Your task to perform on an android device: Set the phone to "Do not disturb". Image 0: 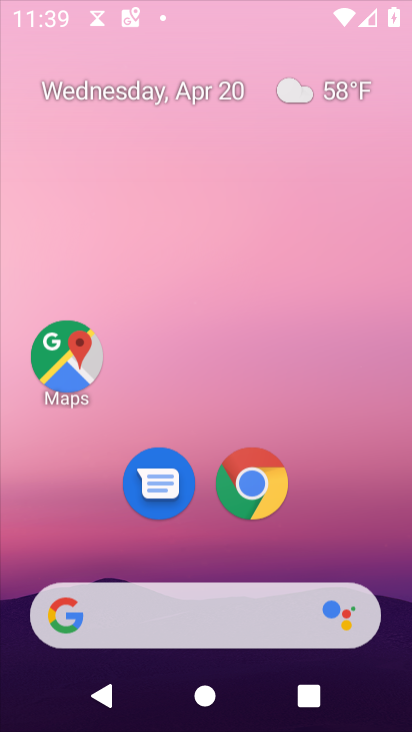
Step 0: drag from (345, 505) to (212, 24)
Your task to perform on an android device: Set the phone to "Do not disturb". Image 1: 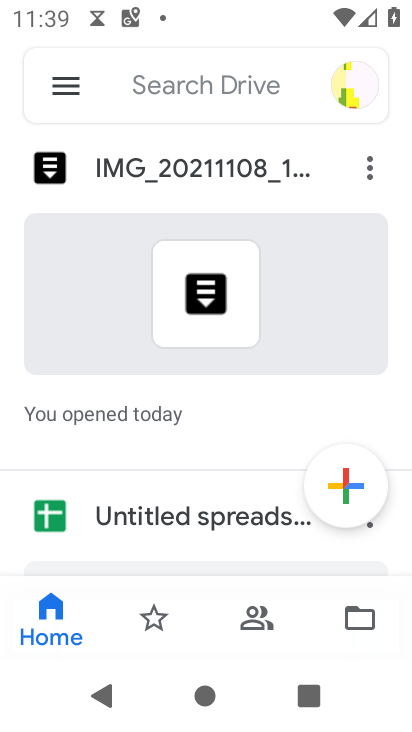
Step 1: press back button
Your task to perform on an android device: Set the phone to "Do not disturb". Image 2: 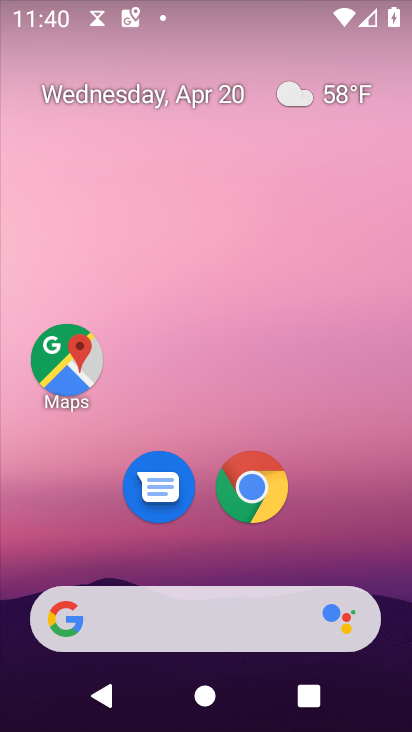
Step 2: drag from (330, 456) to (210, 2)
Your task to perform on an android device: Set the phone to "Do not disturb". Image 3: 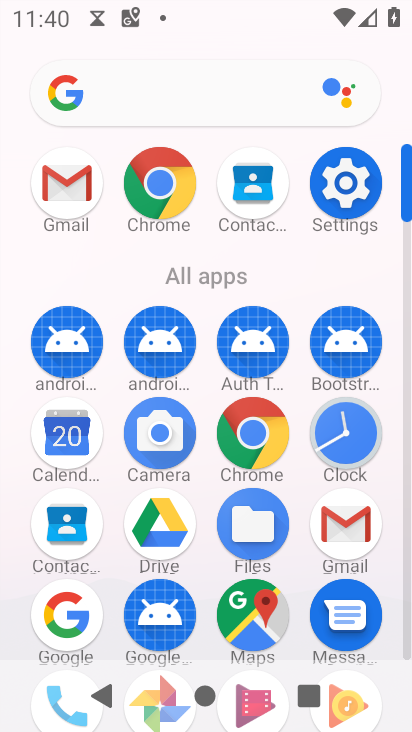
Step 3: click (352, 181)
Your task to perform on an android device: Set the phone to "Do not disturb". Image 4: 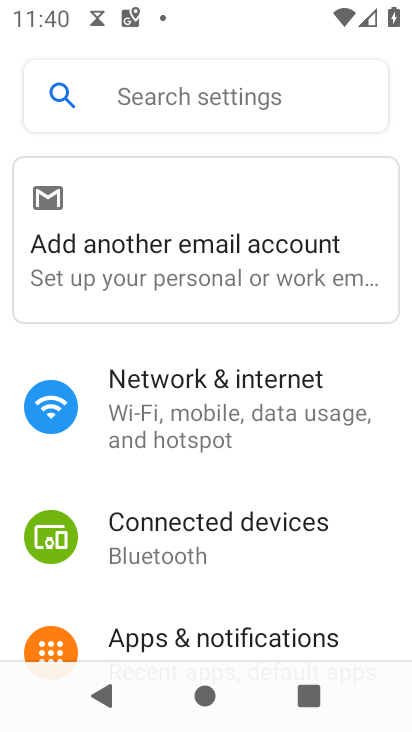
Step 4: drag from (319, 621) to (322, 211)
Your task to perform on an android device: Set the phone to "Do not disturb". Image 5: 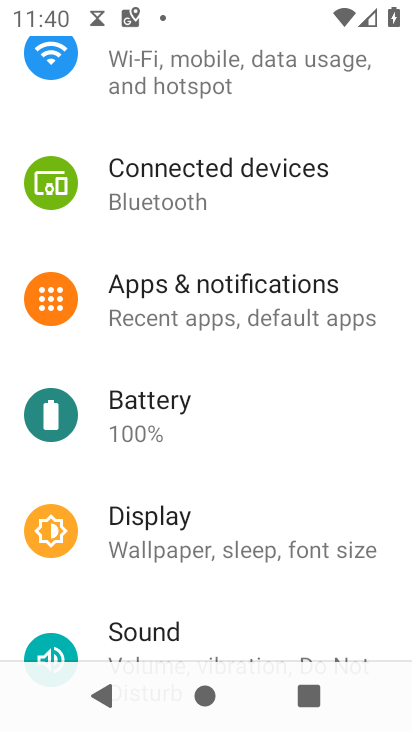
Step 5: drag from (363, 584) to (359, 219)
Your task to perform on an android device: Set the phone to "Do not disturb". Image 6: 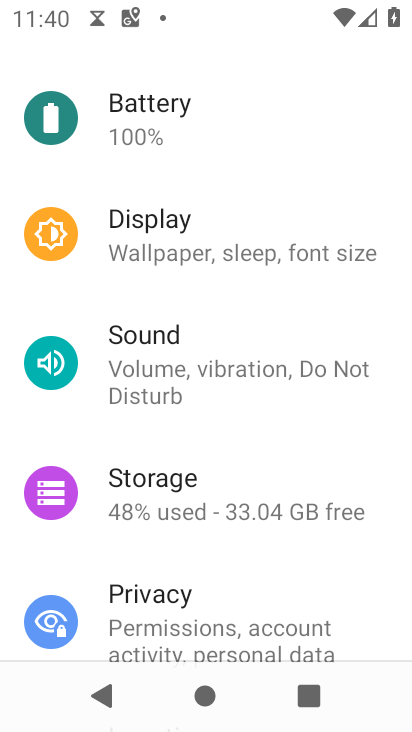
Step 6: click (256, 372)
Your task to perform on an android device: Set the phone to "Do not disturb". Image 7: 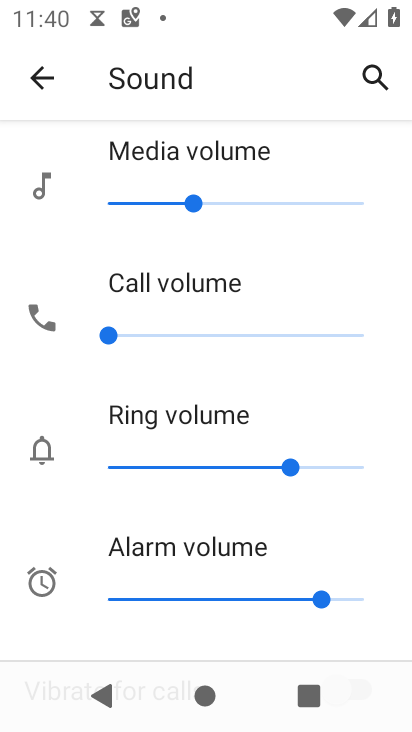
Step 7: drag from (186, 565) to (199, 220)
Your task to perform on an android device: Set the phone to "Do not disturb". Image 8: 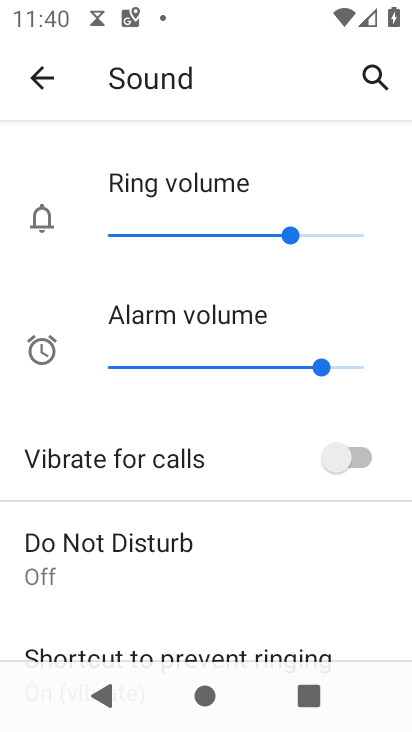
Step 8: click (116, 570)
Your task to perform on an android device: Set the phone to "Do not disturb". Image 9: 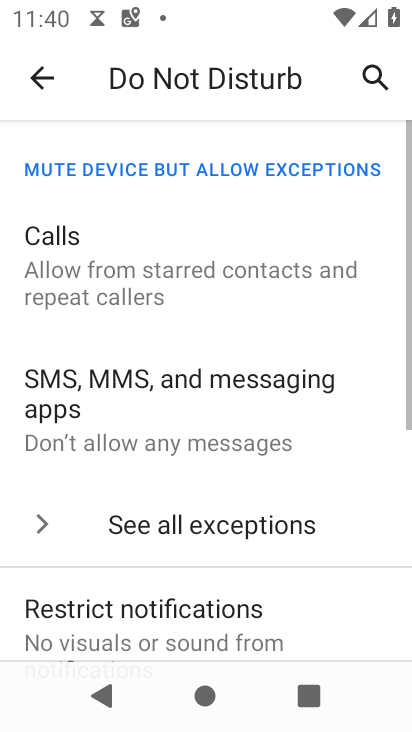
Step 9: drag from (237, 360) to (210, 182)
Your task to perform on an android device: Set the phone to "Do not disturb". Image 10: 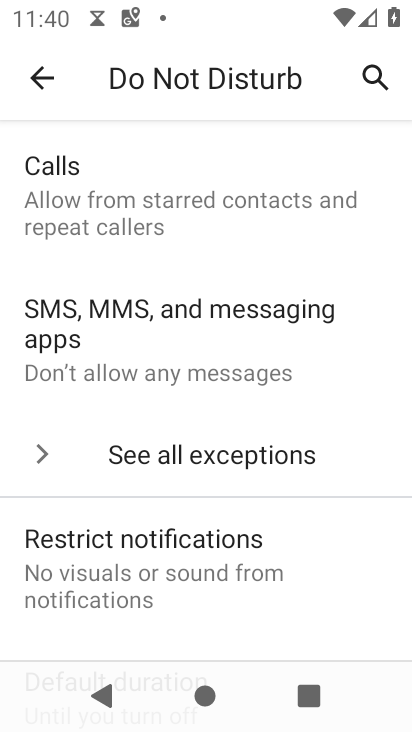
Step 10: drag from (207, 499) to (223, 174)
Your task to perform on an android device: Set the phone to "Do not disturb". Image 11: 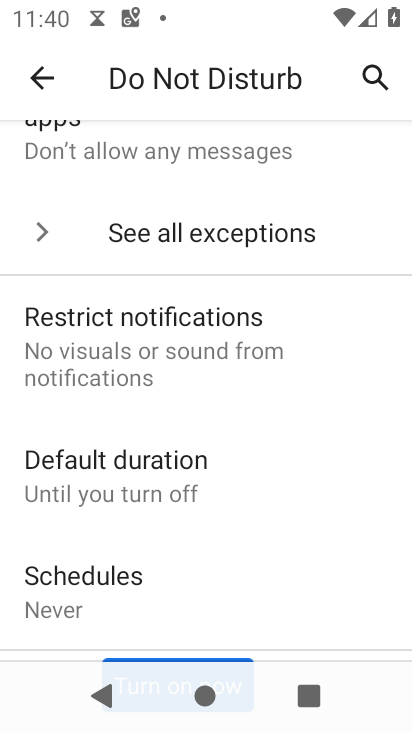
Step 11: drag from (201, 542) to (207, 252)
Your task to perform on an android device: Set the phone to "Do not disturb". Image 12: 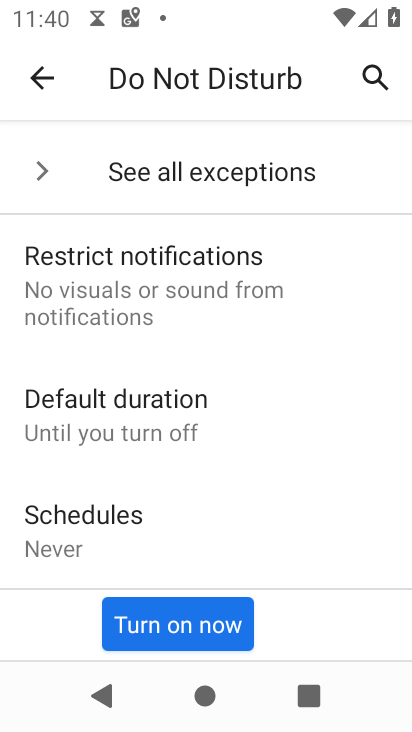
Step 12: click (148, 631)
Your task to perform on an android device: Set the phone to "Do not disturb". Image 13: 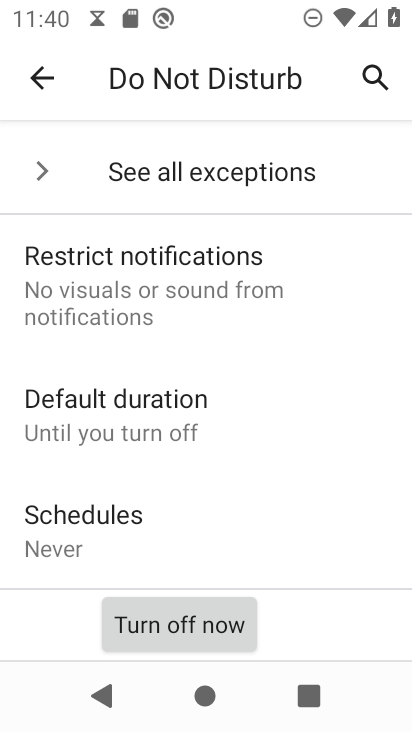
Step 13: task complete